Your task to perform on an android device: Go to Android settings Image 0: 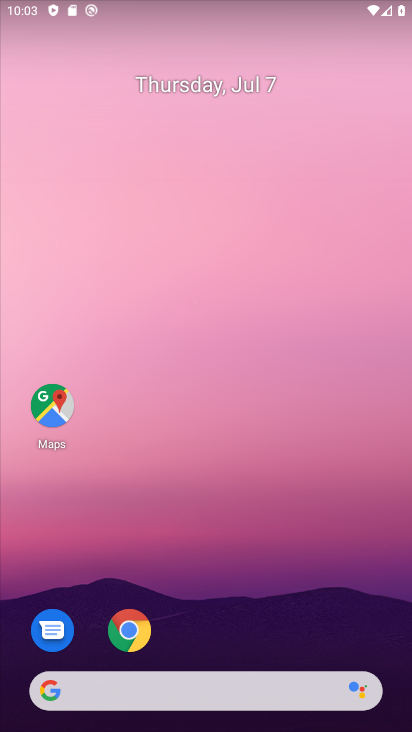
Step 0: click (101, 689)
Your task to perform on an android device: Go to Android settings Image 1: 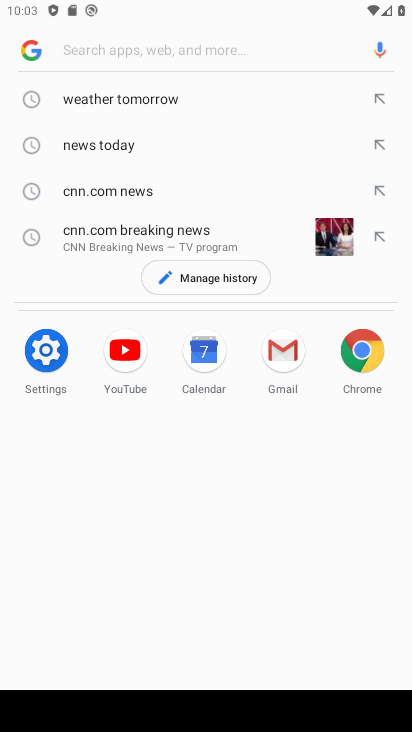
Step 1: press home button
Your task to perform on an android device: Go to Android settings Image 2: 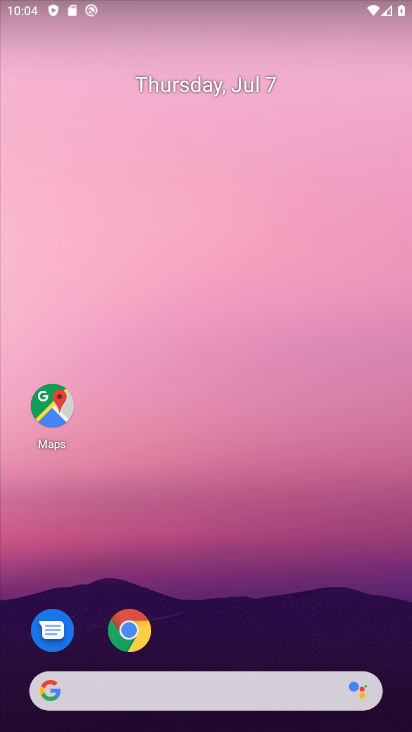
Step 2: drag from (43, 687) to (384, 263)
Your task to perform on an android device: Go to Android settings Image 3: 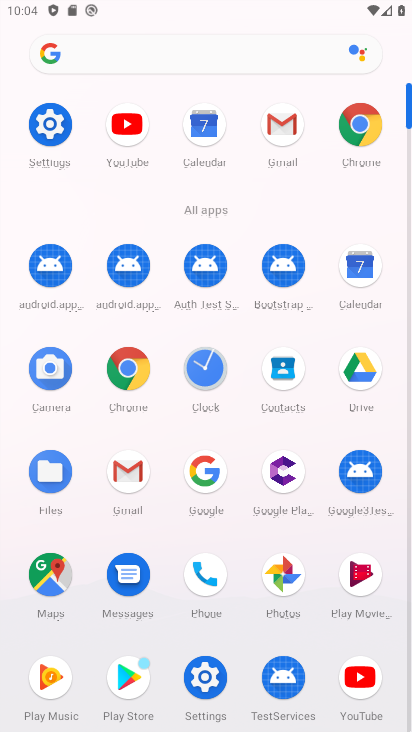
Step 3: click (196, 677)
Your task to perform on an android device: Go to Android settings Image 4: 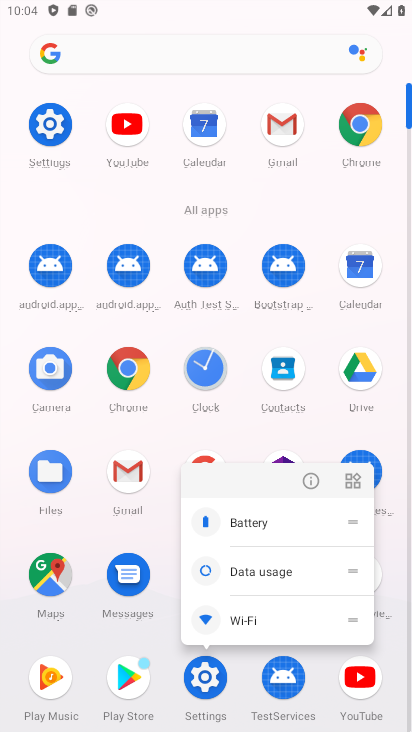
Step 4: click (195, 680)
Your task to perform on an android device: Go to Android settings Image 5: 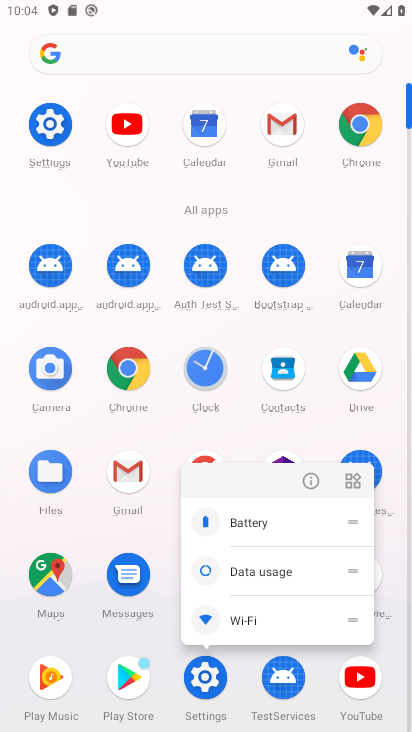
Step 5: click (202, 689)
Your task to perform on an android device: Go to Android settings Image 6: 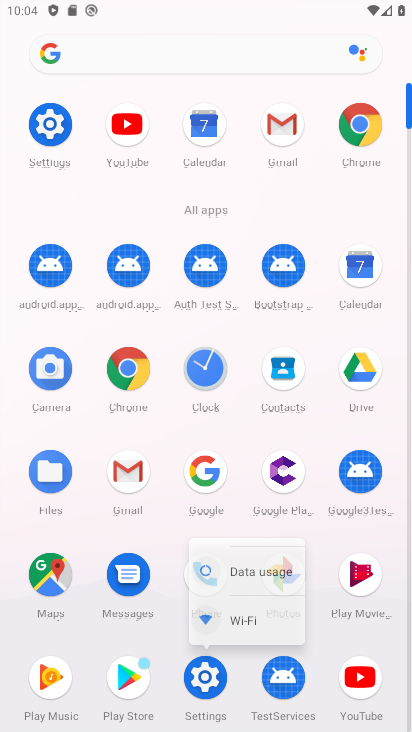
Step 6: click (202, 689)
Your task to perform on an android device: Go to Android settings Image 7: 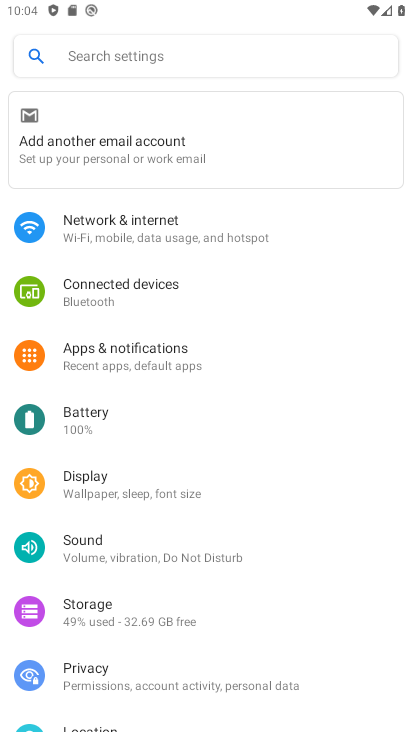
Step 7: drag from (158, 696) to (248, 236)
Your task to perform on an android device: Go to Android settings Image 8: 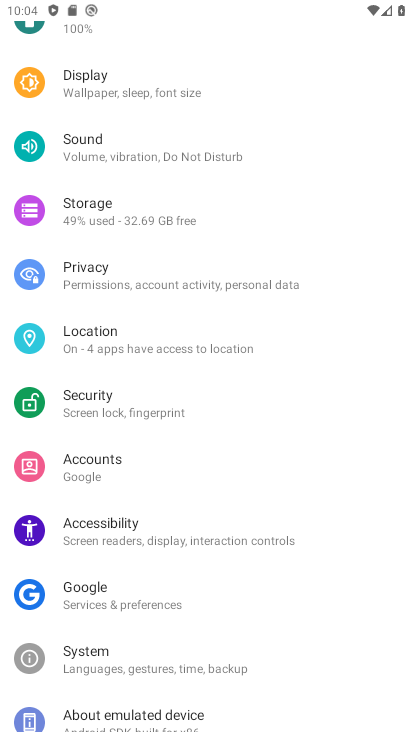
Step 8: drag from (188, 720) to (297, 153)
Your task to perform on an android device: Go to Android settings Image 9: 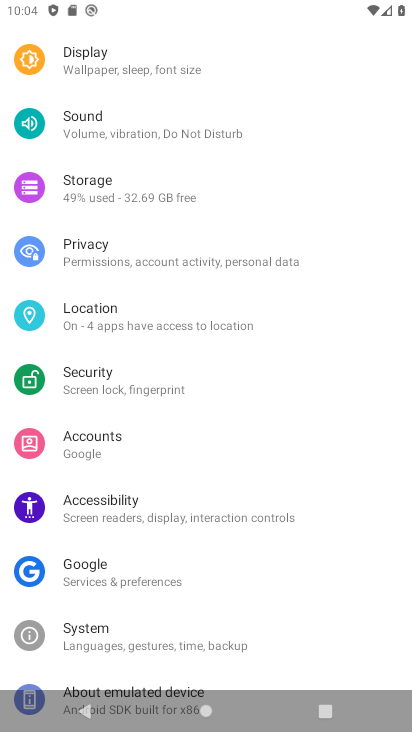
Step 9: drag from (235, 633) to (272, 19)
Your task to perform on an android device: Go to Android settings Image 10: 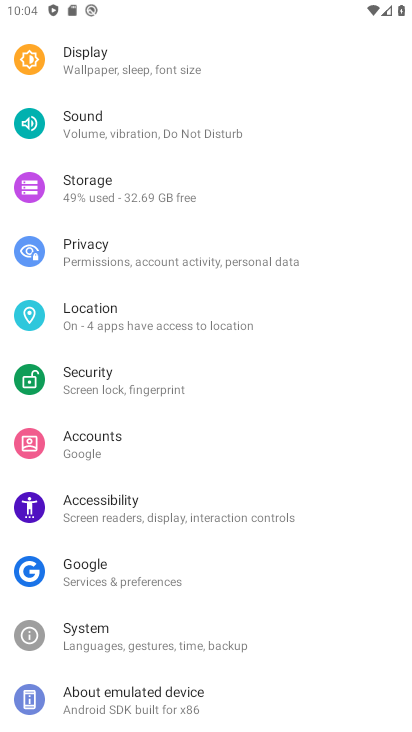
Step 10: click (101, 704)
Your task to perform on an android device: Go to Android settings Image 11: 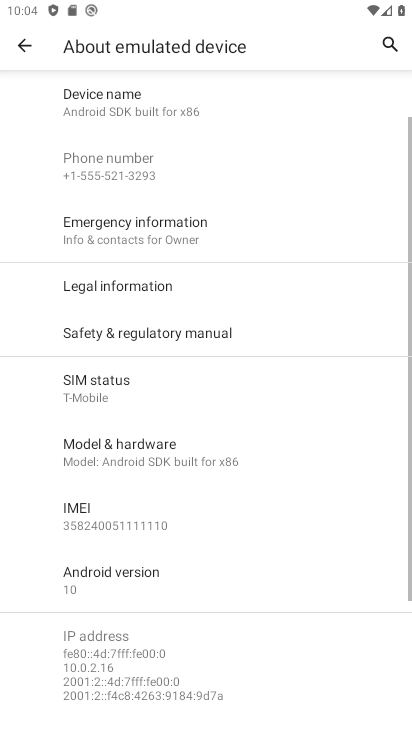
Step 11: task complete